Your task to perform on an android device: Open the stopwatch Image 0: 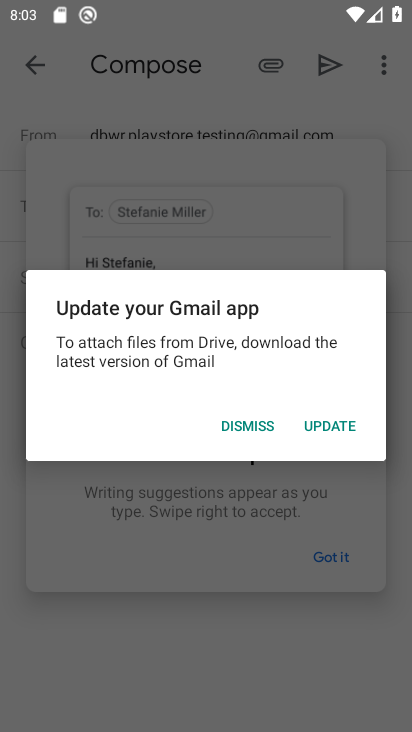
Step 0: press home button
Your task to perform on an android device: Open the stopwatch Image 1: 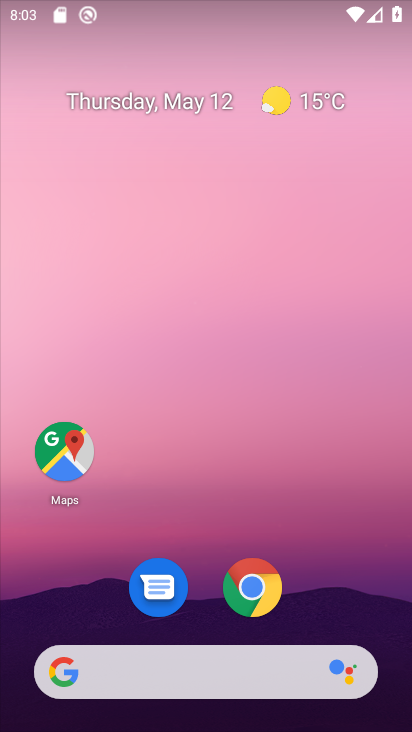
Step 1: drag from (339, 578) to (275, 133)
Your task to perform on an android device: Open the stopwatch Image 2: 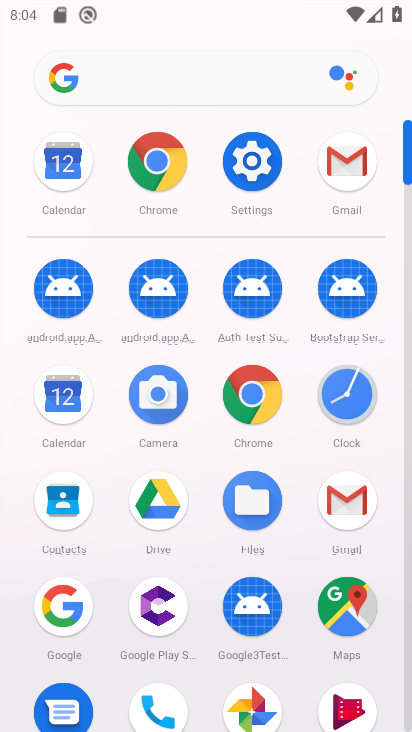
Step 2: click (351, 400)
Your task to perform on an android device: Open the stopwatch Image 3: 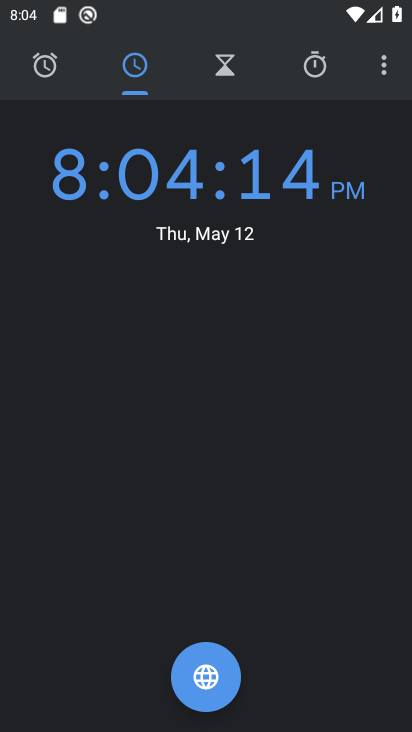
Step 3: click (321, 77)
Your task to perform on an android device: Open the stopwatch Image 4: 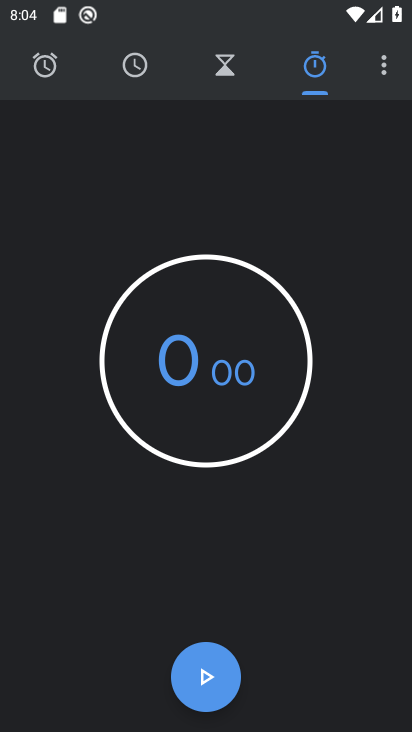
Step 4: task complete